Your task to perform on an android device: Play the last video I watched on Youtube Image 0: 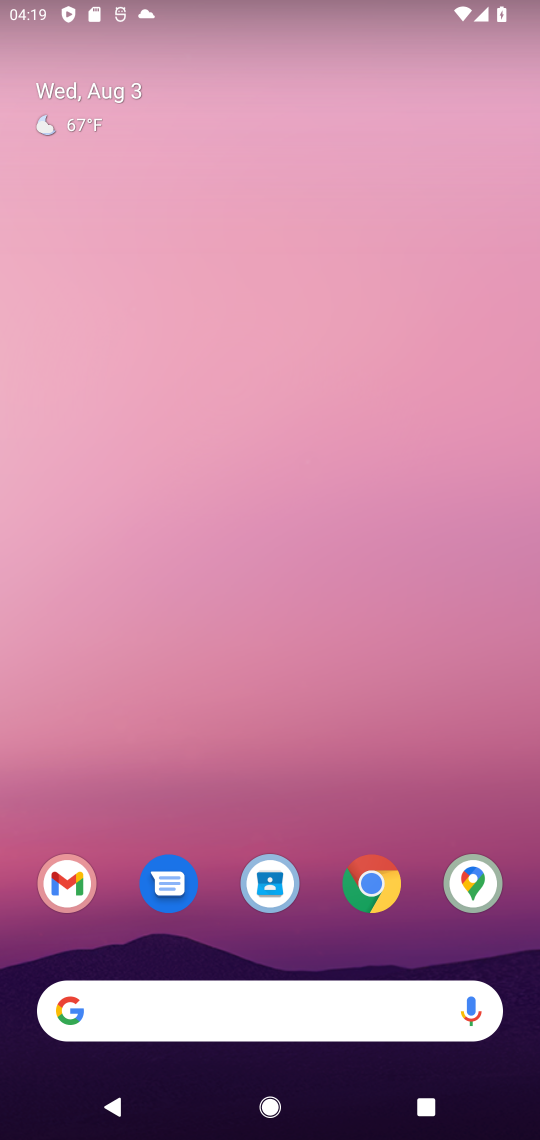
Step 0: drag from (248, 966) to (50, 40)
Your task to perform on an android device: Play the last video I watched on Youtube Image 1: 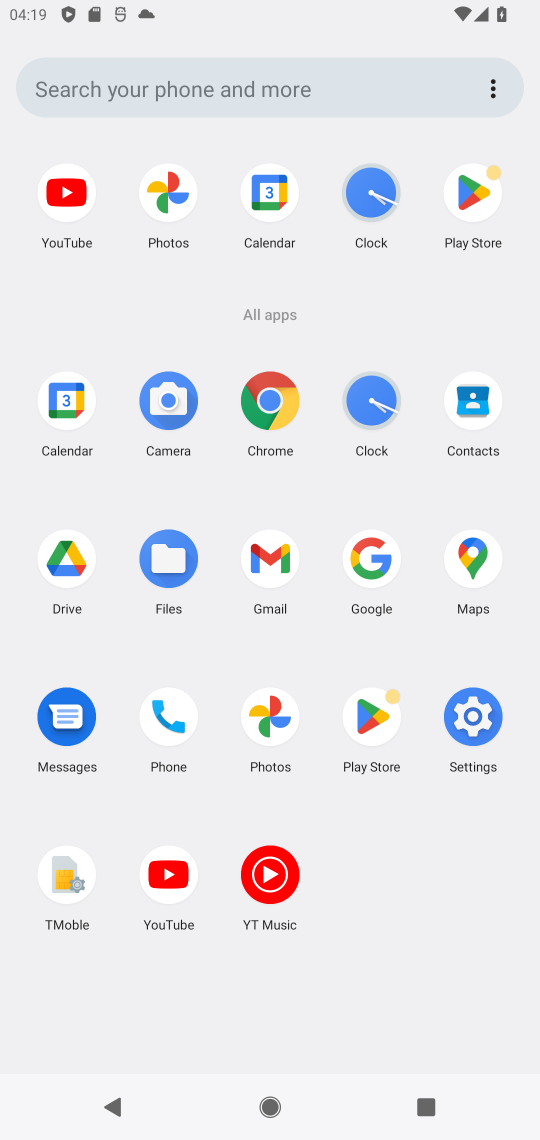
Step 1: click (170, 870)
Your task to perform on an android device: Play the last video I watched on Youtube Image 2: 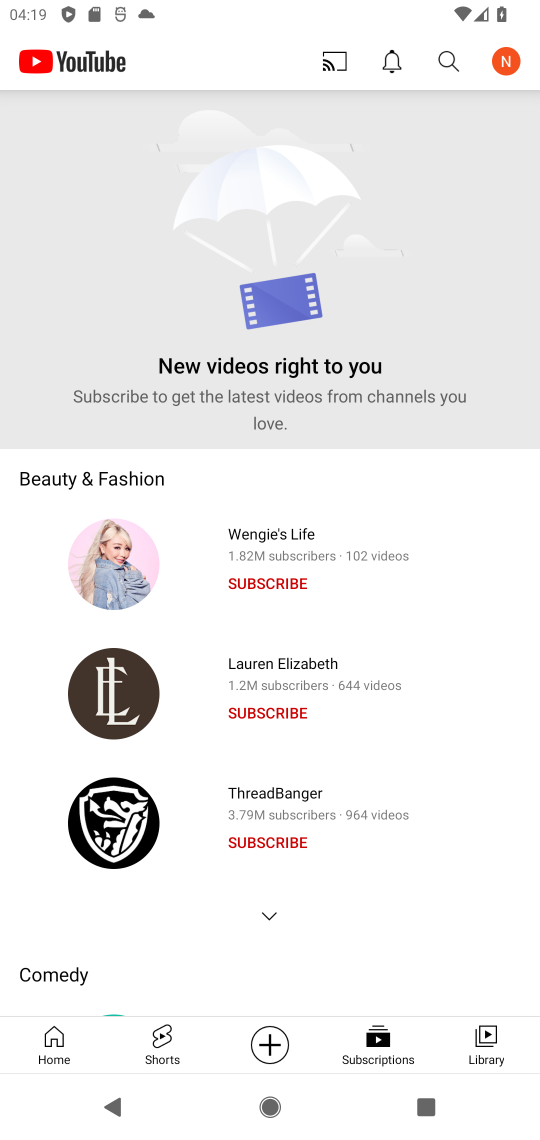
Step 2: click (500, 1037)
Your task to perform on an android device: Play the last video I watched on Youtube Image 3: 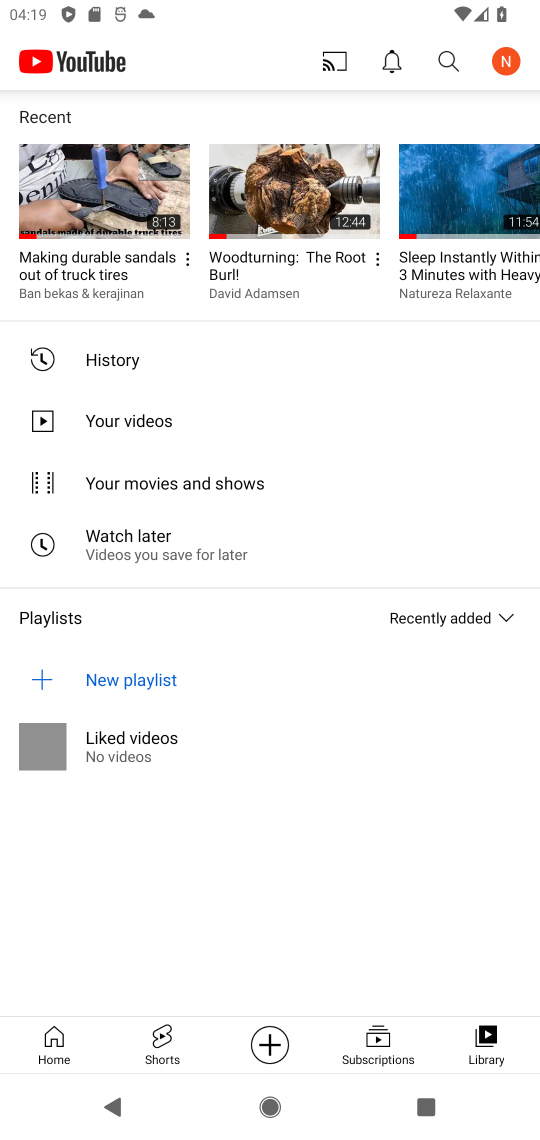
Step 3: click (108, 224)
Your task to perform on an android device: Play the last video I watched on Youtube Image 4: 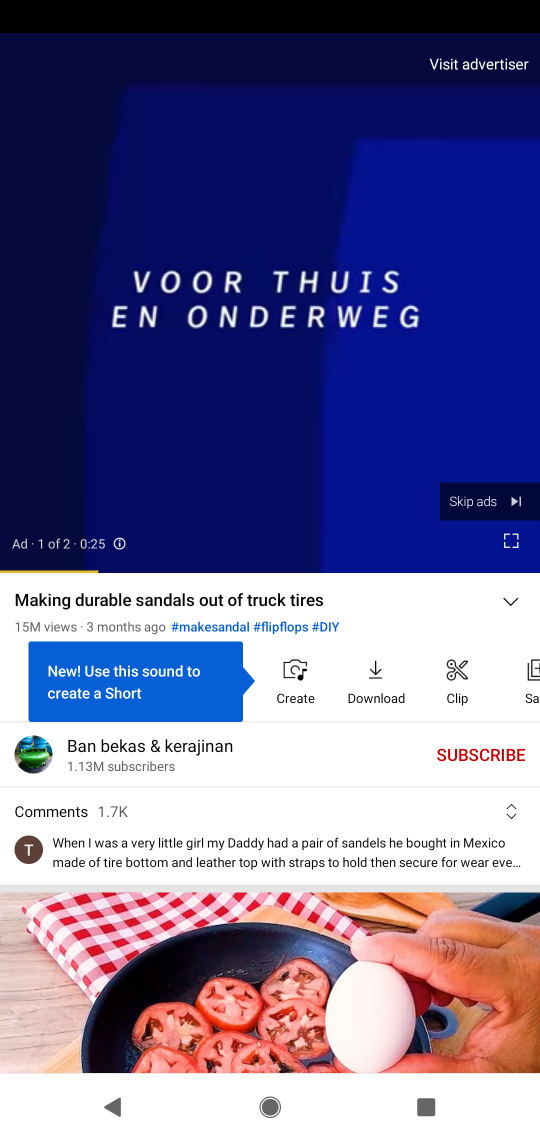
Step 4: task complete